Your task to perform on an android device: toggle javascript in the chrome app Image 0: 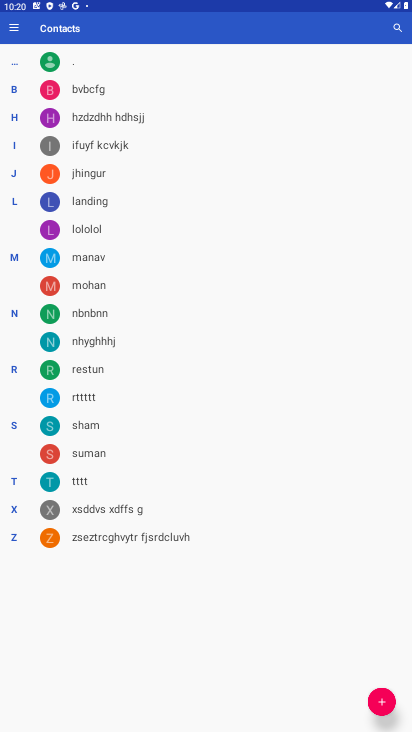
Step 0: task complete